Your task to perform on an android device: Search for top rated burger restaurants on Maps Image 0: 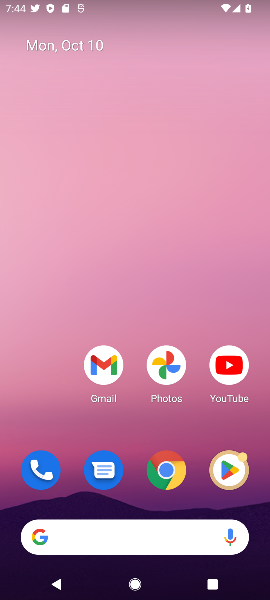
Step 0: drag from (127, 506) to (131, 75)
Your task to perform on an android device: Search for top rated burger restaurants on Maps Image 1: 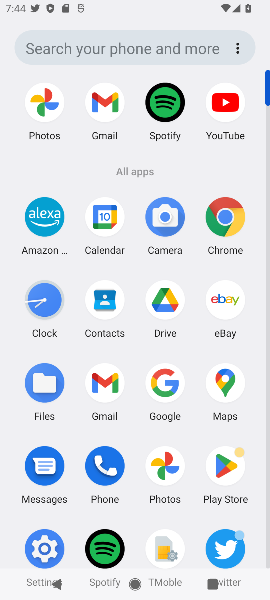
Step 1: click (220, 387)
Your task to perform on an android device: Search for top rated burger restaurants on Maps Image 2: 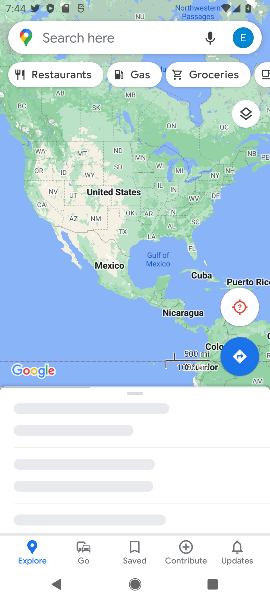
Step 2: click (58, 31)
Your task to perform on an android device: Search for top rated burger restaurants on Maps Image 3: 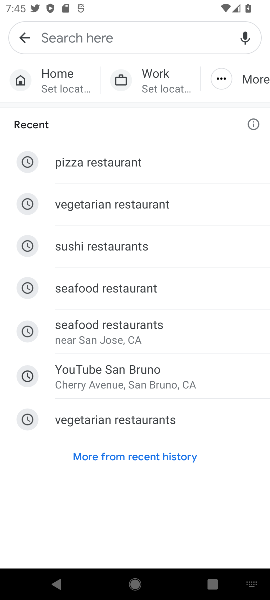
Step 3: type "Search for top rated burger restaurants on Maps"
Your task to perform on an android device: Search for top rated burger restaurants on Maps Image 4: 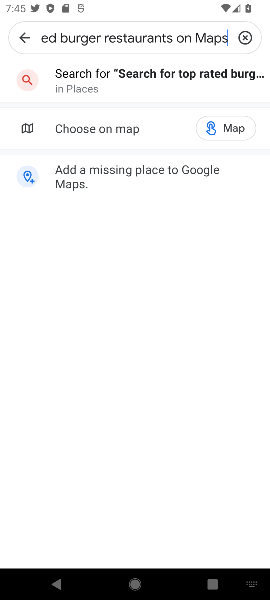
Step 4: click (105, 75)
Your task to perform on an android device: Search for top rated burger restaurants on Maps Image 5: 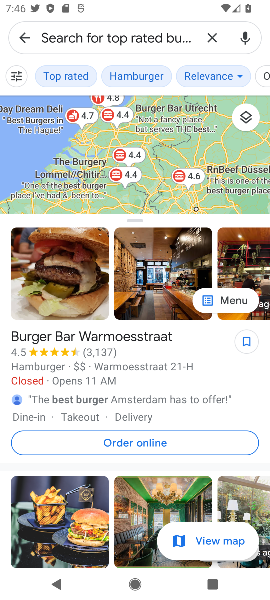
Step 5: task complete